Your task to perform on an android device: open wifi settings Image 0: 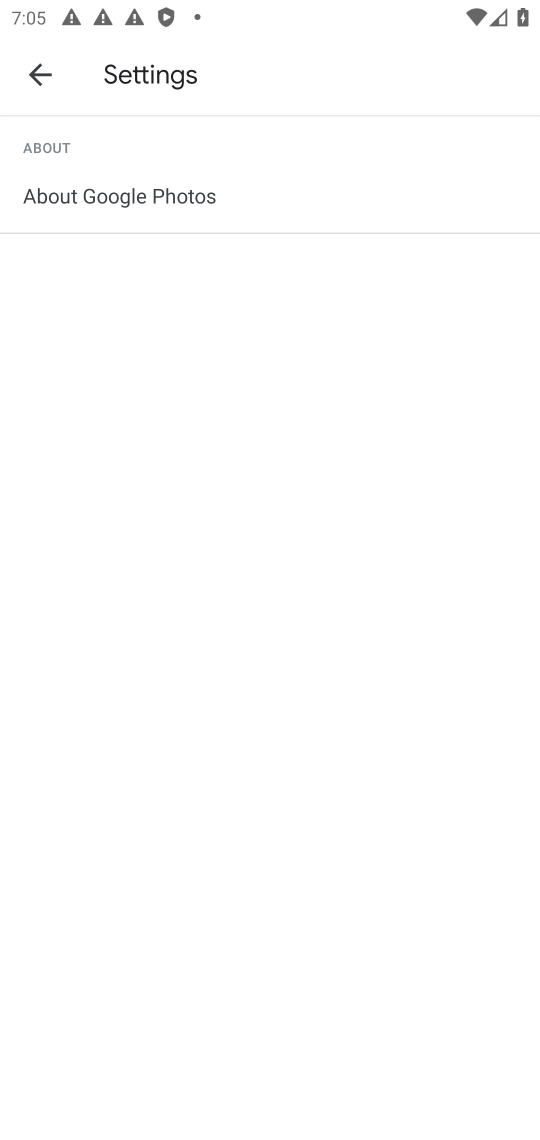
Step 0: press home button
Your task to perform on an android device: open wifi settings Image 1: 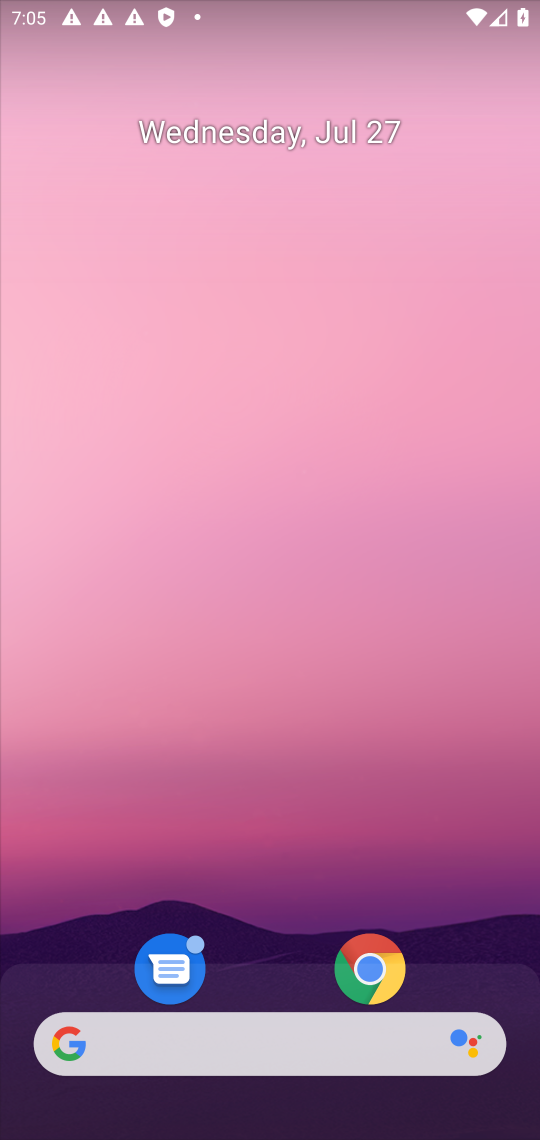
Step 1: drag from (288, 914) to (253, 357)
Your task to perform on an android device: open wifi settings Image 2: 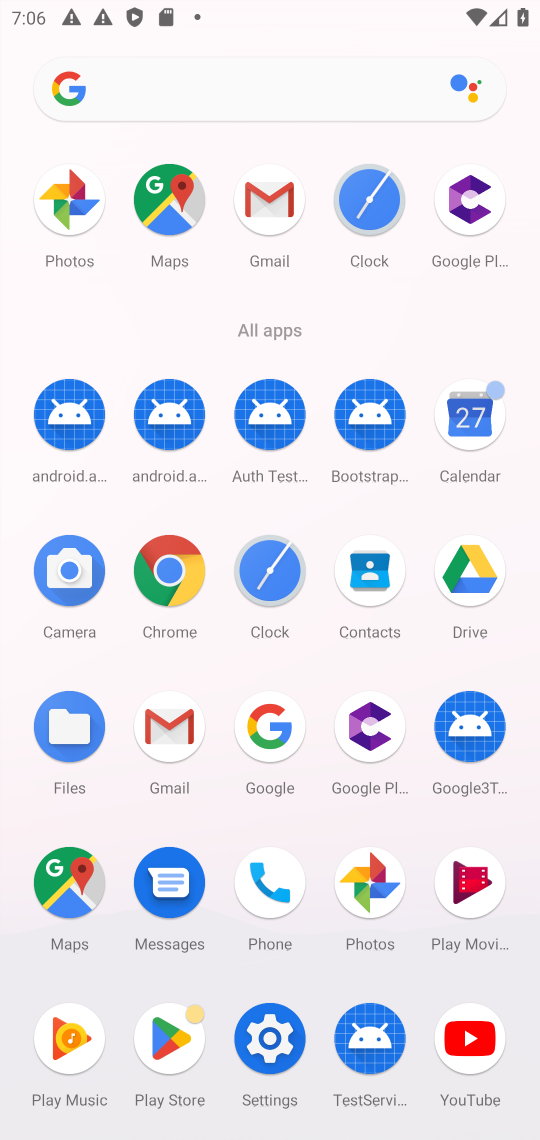
Step 2: click (265, 1045)
Your task to perform on an android device: open wifi settings Image 3: 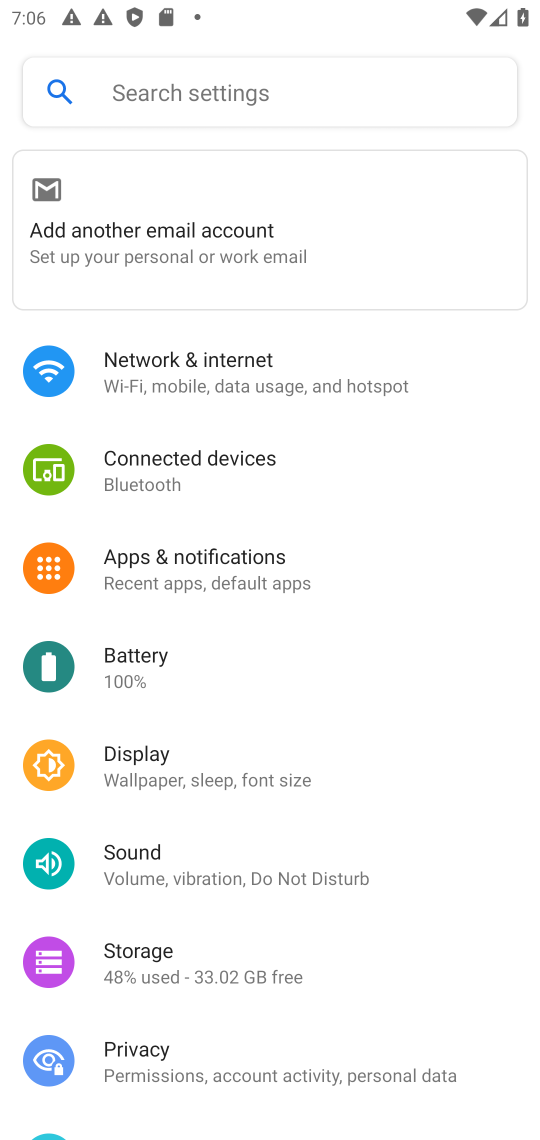
Step 3: click (227, 384)
Your task to perform on an android device: open wifi settings Image 4: 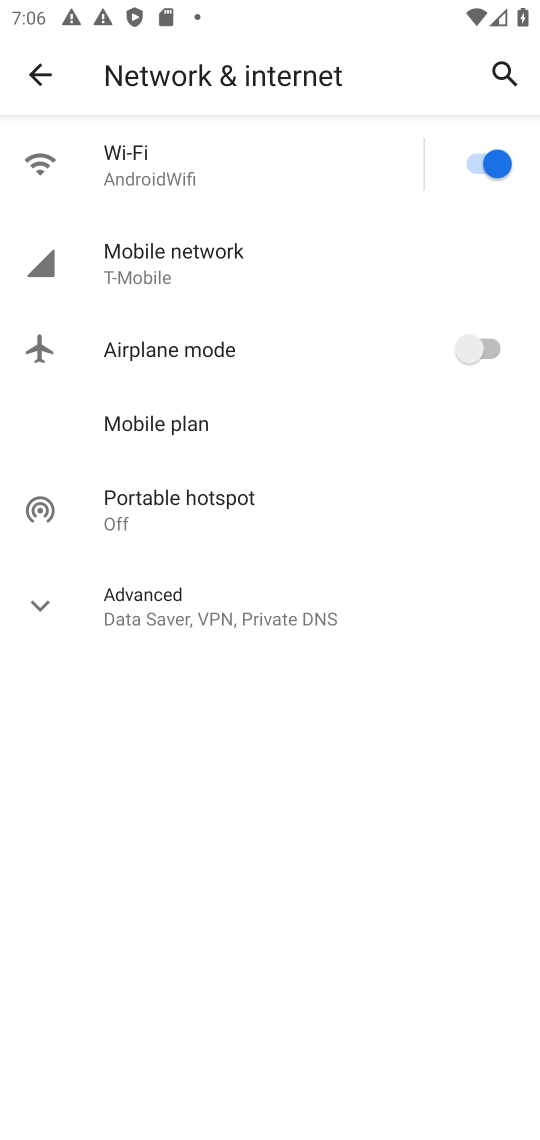
Step 4: click (183, 188)
Your task to perform on an android device: open wifi settings Image 5: 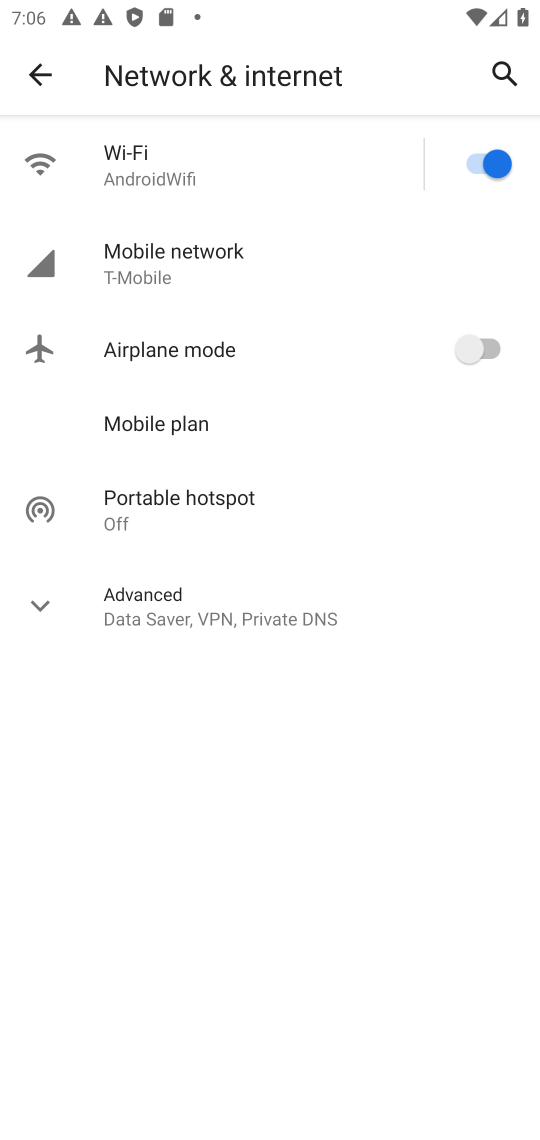
Step 5: task complete